Your task to perform on an android device: turn off translation in the chrome app Image 0: 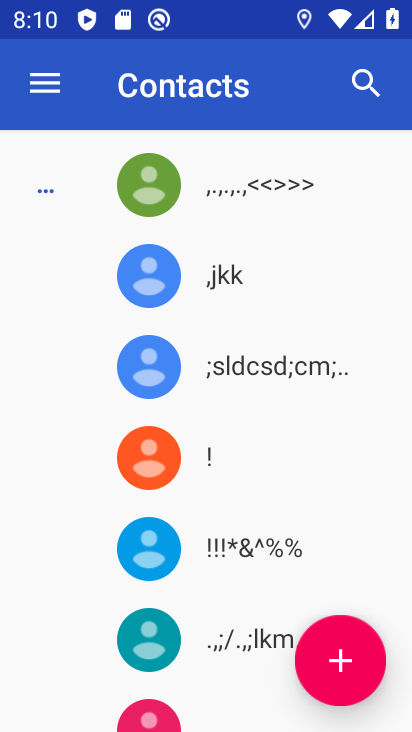
Step 0: press home button
Your task to perform on an android device: turn off translation in the chrome app Image 1: 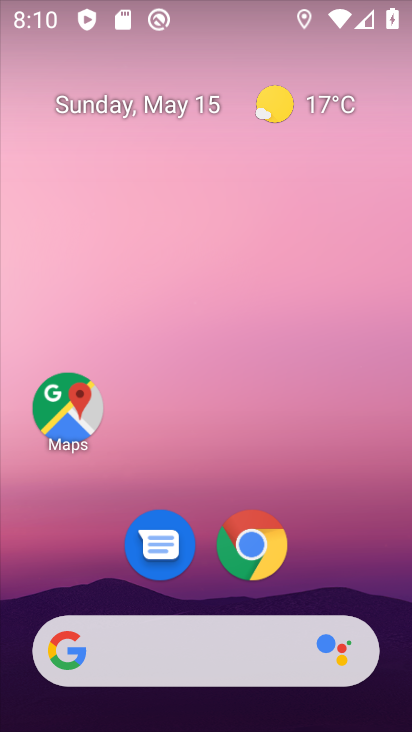
Step 1: click (247, 537)
Your task to perform on an android device: turn off translation in the chrome app Image 2: 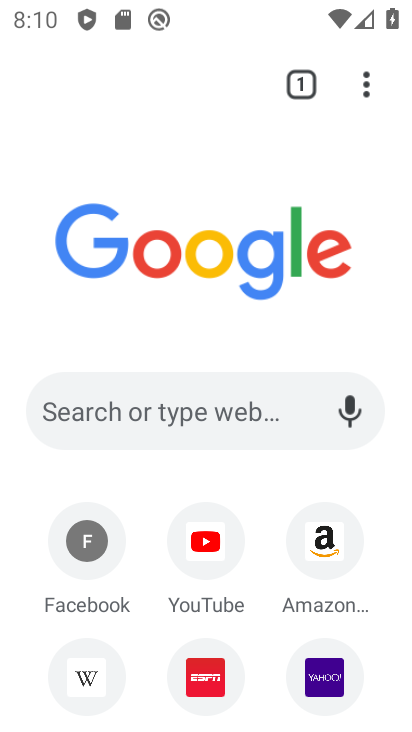
Step 2: click (363, 90)
Your task to perform on an android device: turn off translation in the chrome app Image 3: 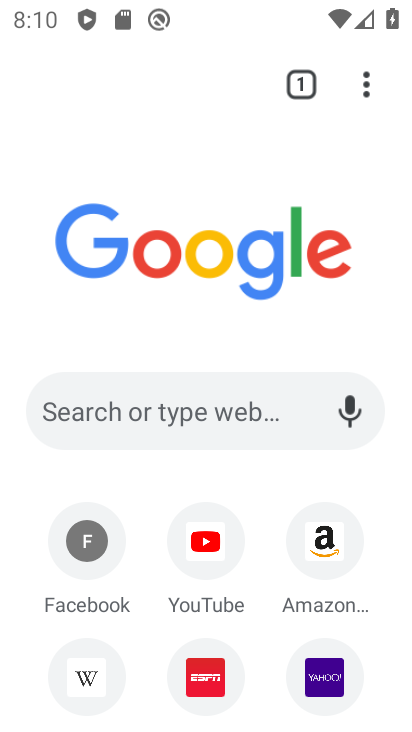
Step 3: click (367, 88)
Your task to perform on an android device: turn off translation in the chrome app Image 4: 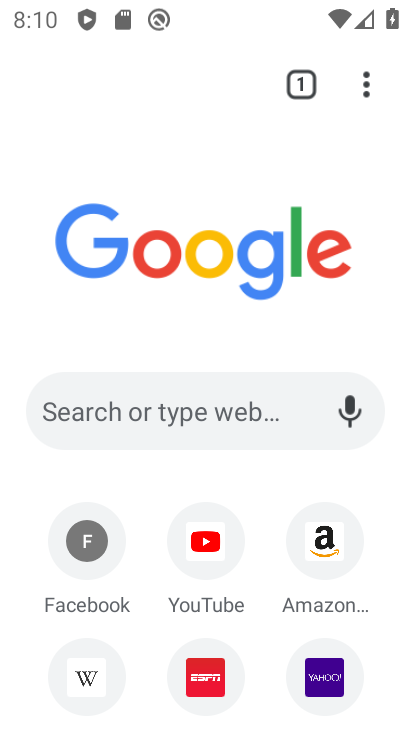
Step 4: click (368, 86)
Your task to perform on an android device: turn off translation in the chrome app Image 5: 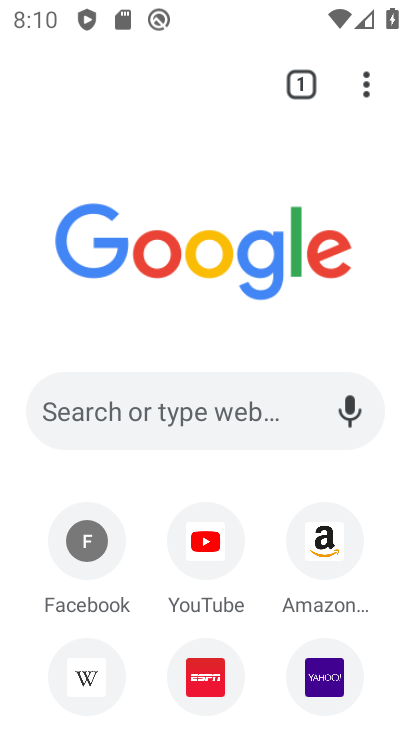
Step 5: click (368, 83)
Your task to perform on an android device: turn off translation in the chrome app Image 6: 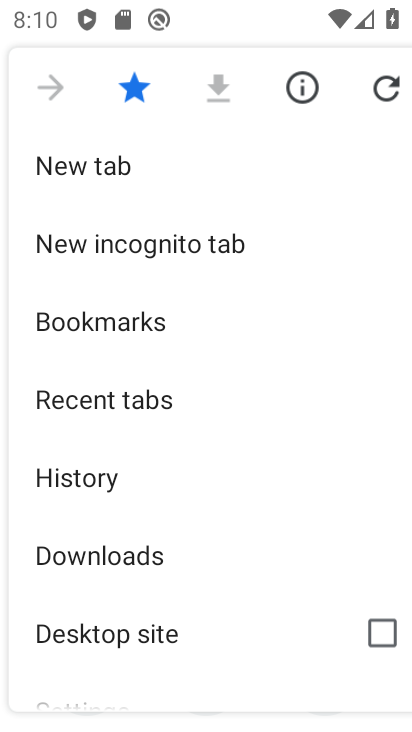
Step 6: drag from (173, 604) to (144, 219)
Your task to perform on an android device: turn off translation in the chrome app Image 7: 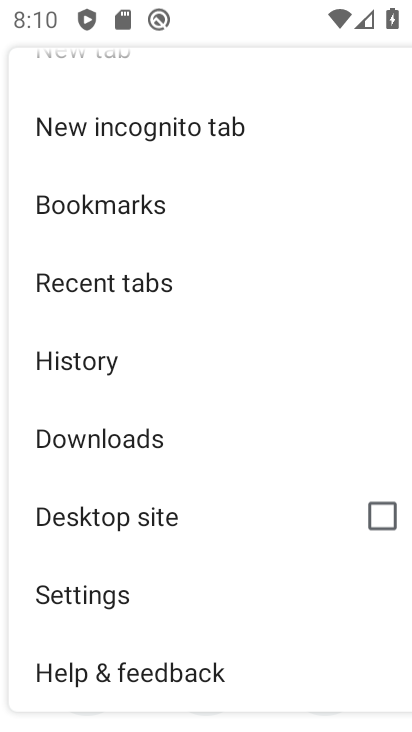
Step 7: click (79, 598)
Your task to perform on an android device: turn off translation in the chrome app Image 8: 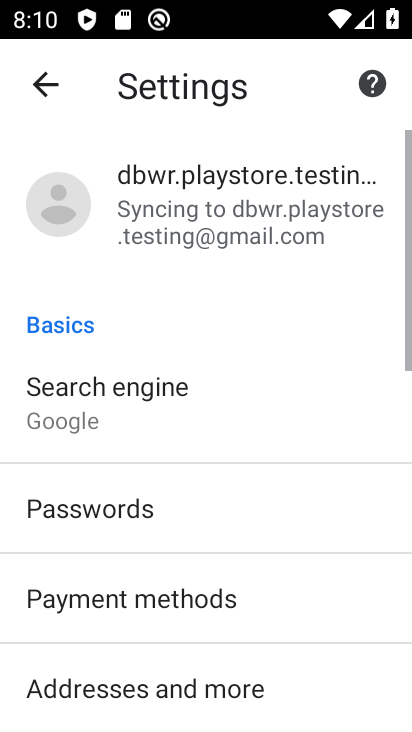
Step 8: drag from (96, 642) to (125, 237)
Your task to perform on an android device: turn off translation in the chrome app Image 9: 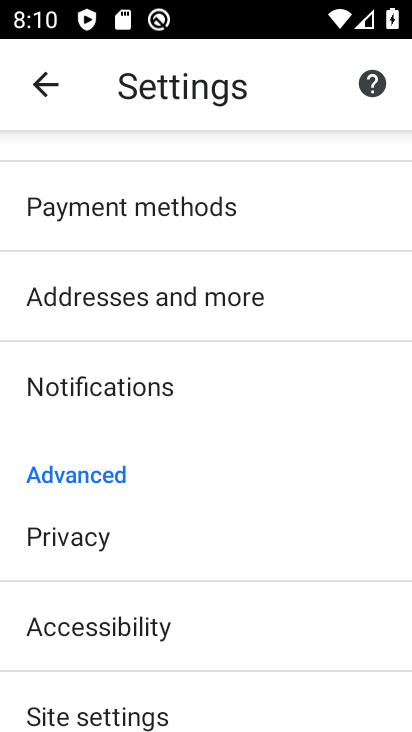
Step 9: drag from (117, 680) to (204, 293)
Your task to perform on an android device: turn off translation in the chrome app Image 10: 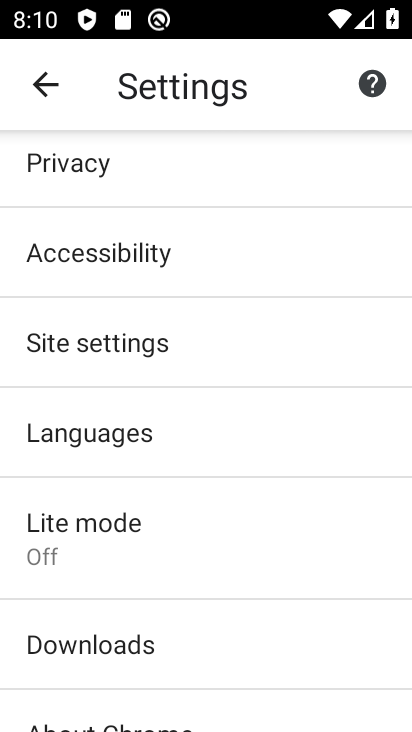
Step 10: click (90, 439)
Your task to perform on an android device: turn off translation in the chrome app Image 11: 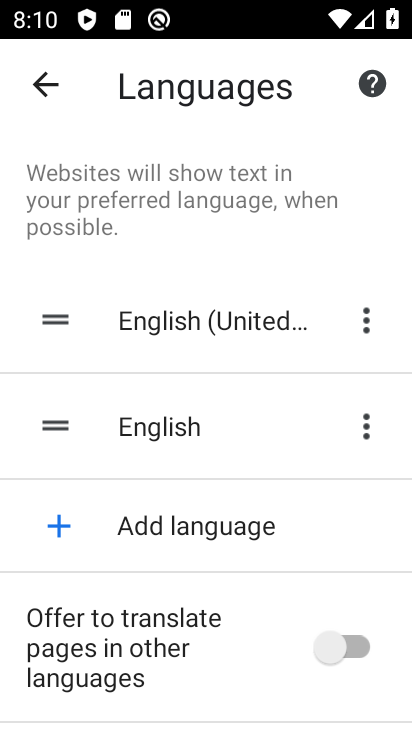
Step 11: task complete